Your task to perform on an android device: Is it going to rain today? Image 0: 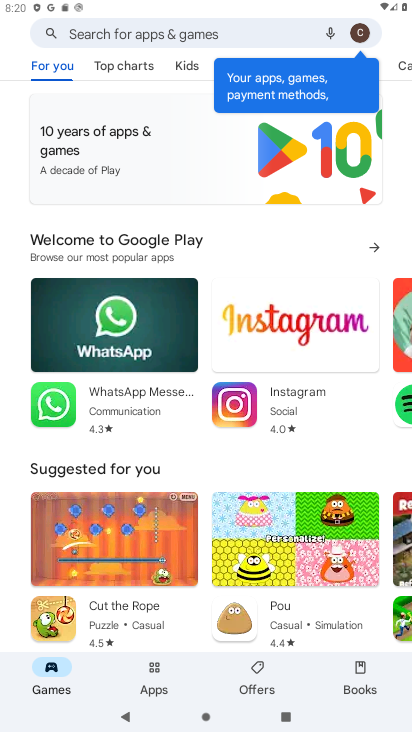
Step 0: press home button
Your task to perform on an android device: Is it going to rain today? Image 1: 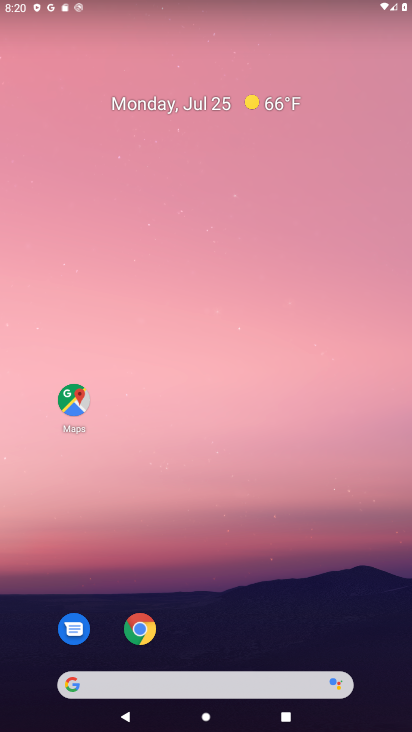
Step 1: click (206, 683)
Your task to perform on an android device: Is it going to rain today? Image 2: 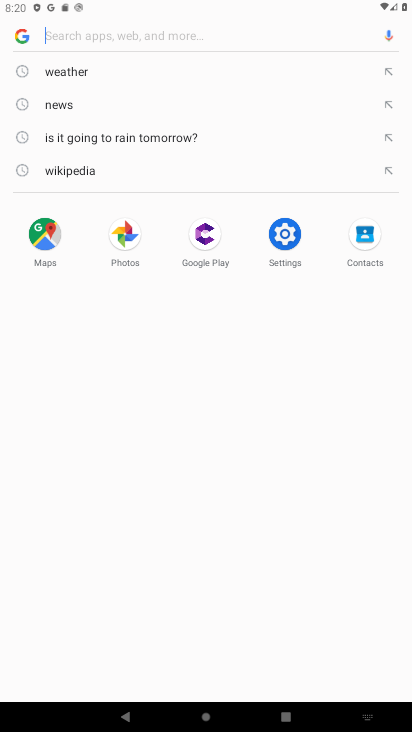
Step 2: type "is it going to rain today"
Your task to perform on an android device: Is it going to rain today? Image 3: 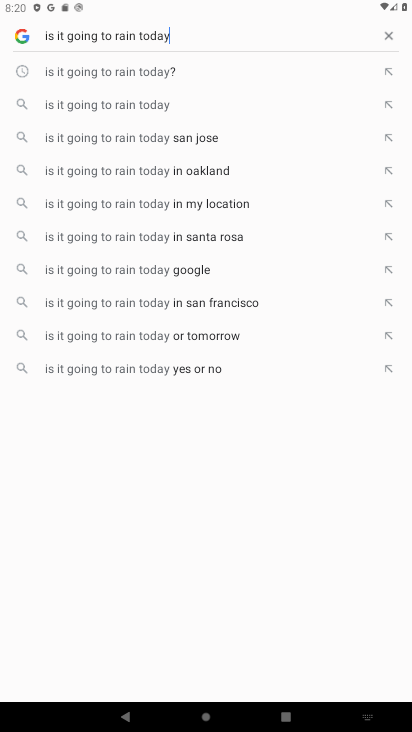
Step 3: click (219, 74)
Your task to perform on an android device: Is it going to rain today? Image 4: 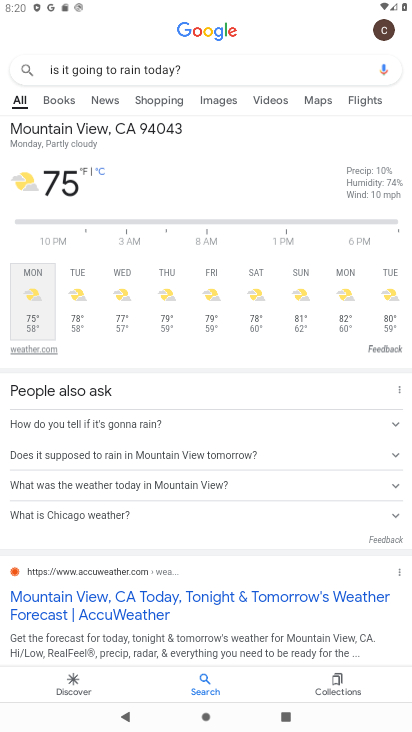
Step 4: task complete